Your task to perform on an android device: Set the phone to "Do not disturb". Image 0: 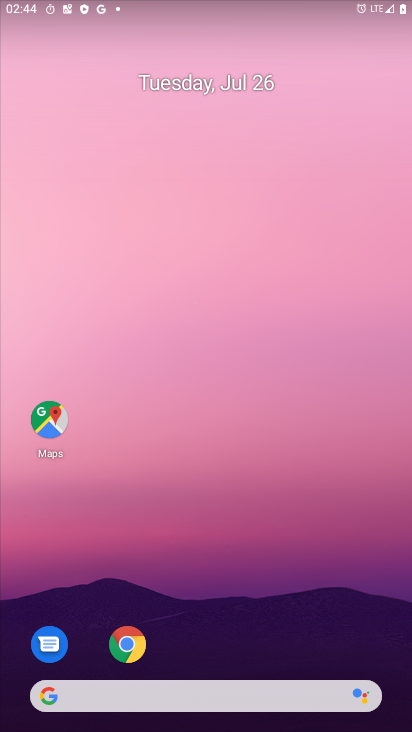
Step 0: drag from (242, 578) to (228, 16)
Your task to perform on an android device: Set the phone to "Do not disturb". Image 1: 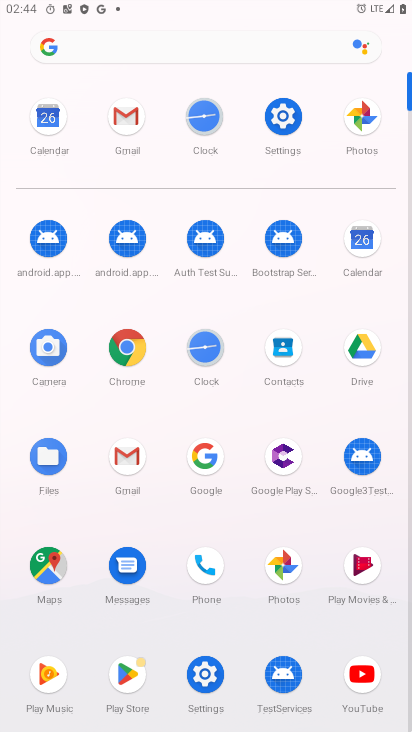
Step 1: click (288, 130)
Your task to perform on an android device: Set the phone to "Do not disturb". Image 2: 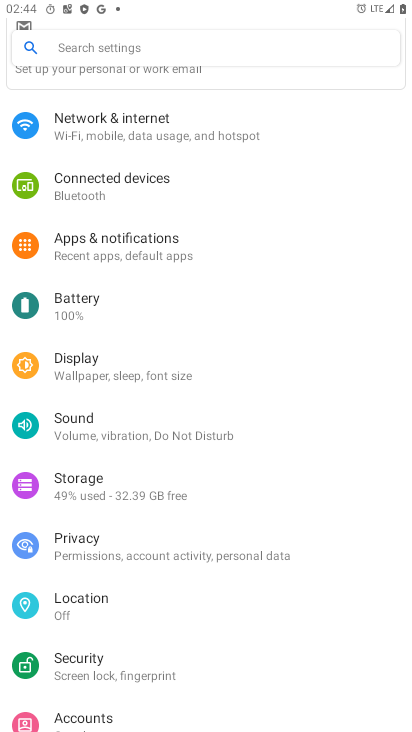
Step 2: click (71, 431)
Your task to perform on an android device: Set the phone to "Do not disturb". Image 3: 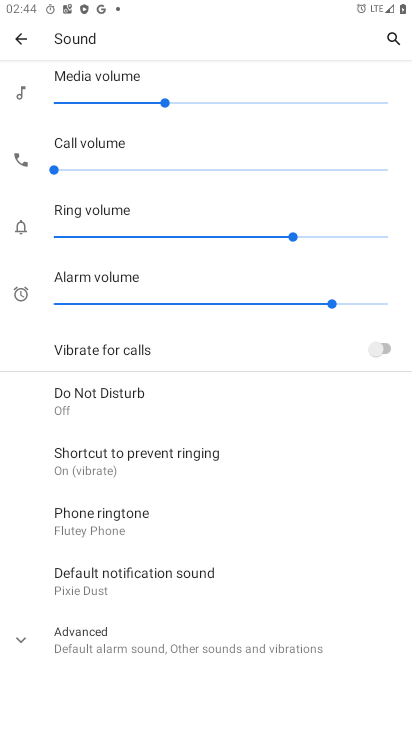
Step 3: click (83, 401)
Your task to perform on an android device: Set the phone to "Do not disturb". Image 4: 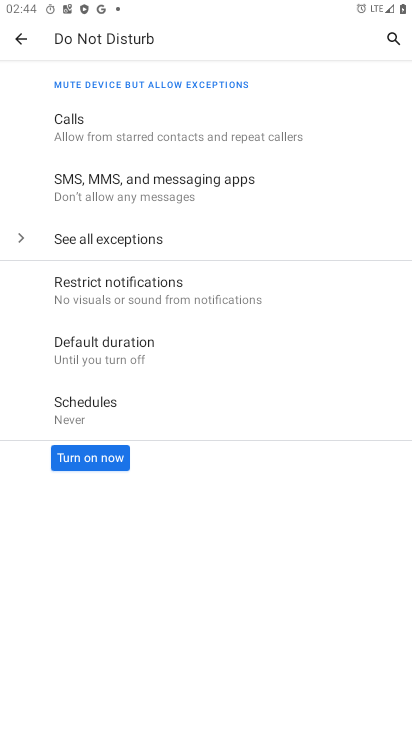
Step 4: click (90, 452)
Your task to perform on an android device: Set the phone to "Do not disturb". Image 5: 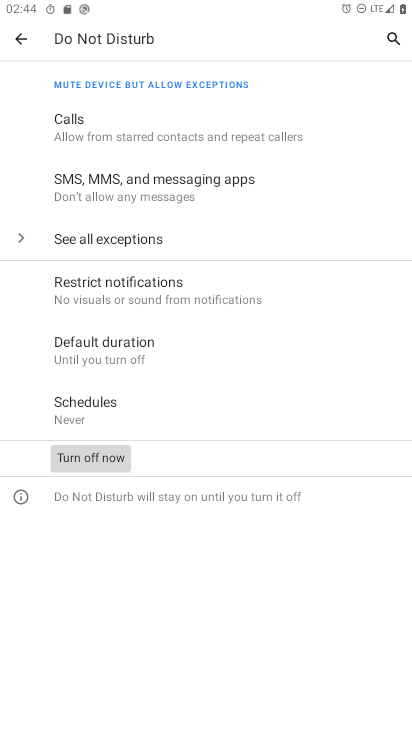
Step 5: task complete